Your task to perform on an android device: allow notifications from all sites in the chrome app Image 0: 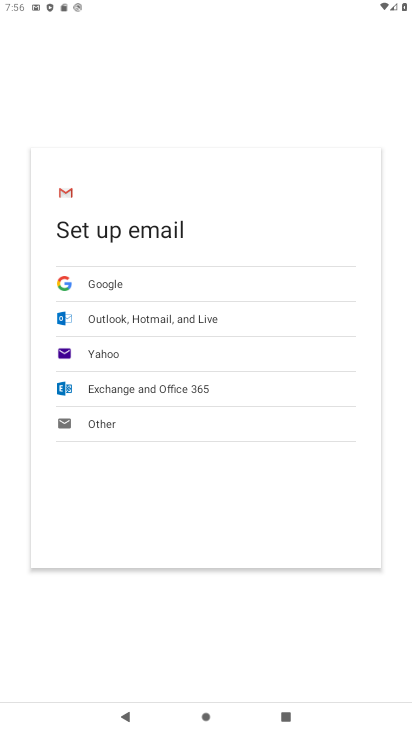
Step 0: press home button
Your task to perform on an android device: allow notifications from all sites in the chrome app Image 1: 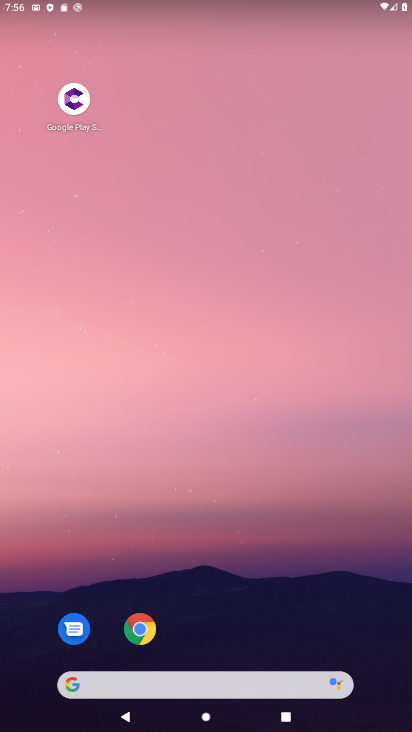
Step 1: drag from (229, 639) to (232, 572)
Your task to perform on an android device: allow notifications from all sites in the chrome app Image 2: 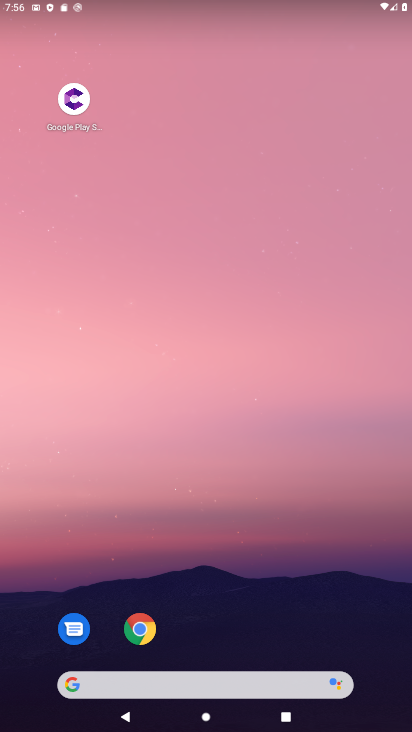
Step 2: click (133, 632)
Your task to perform on an android device: allow notifications from all sites in the chrome app Image 3: 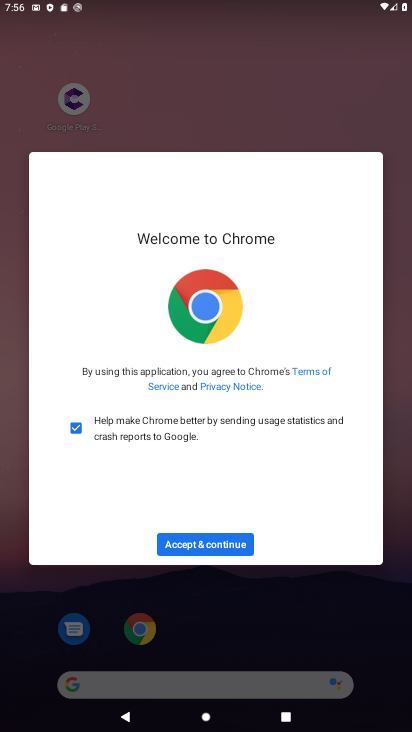
Step 3: click (227, 538)
Your task to perform on an android device: allow notifications from all sites in the chrome app Image 4: 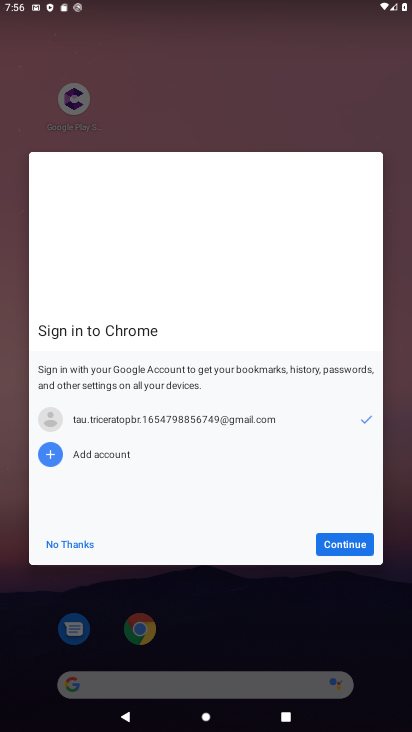
Step 4: click (330, 544)
Your task to perform on an android device: allow notifications from all sites in the chrome app Image 5: 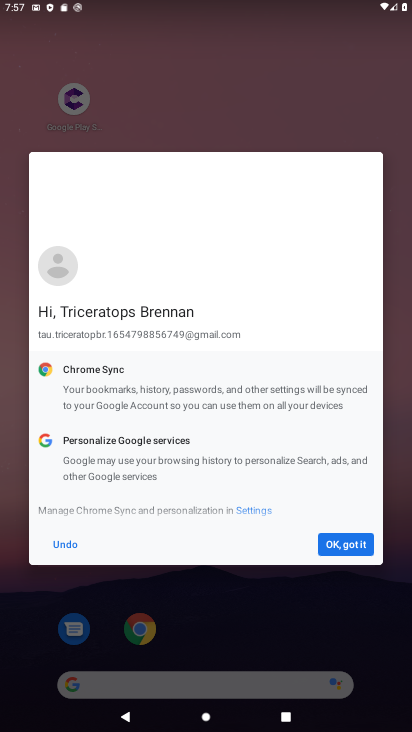
Step 5: click (325, 541)
Your task to perform on an android device: allow notifications from all sites in the chrome app Image 6: 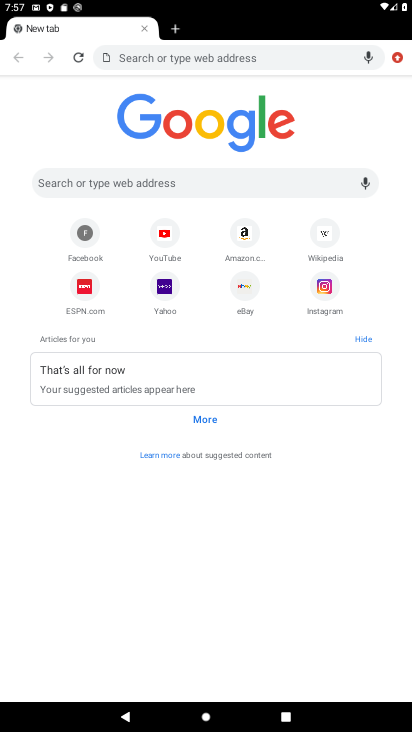
Step 6: click (395, 46)
Your task to perform on an android device: allow notifications from all sites in the chrome app Image 7: 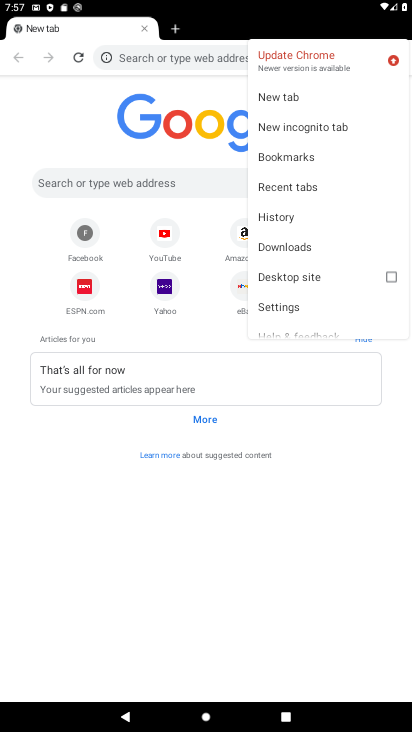
Step 7: click (294, 307)
Your task to perform on an android device: allow notifications from all sites in the chrome app Image 8: 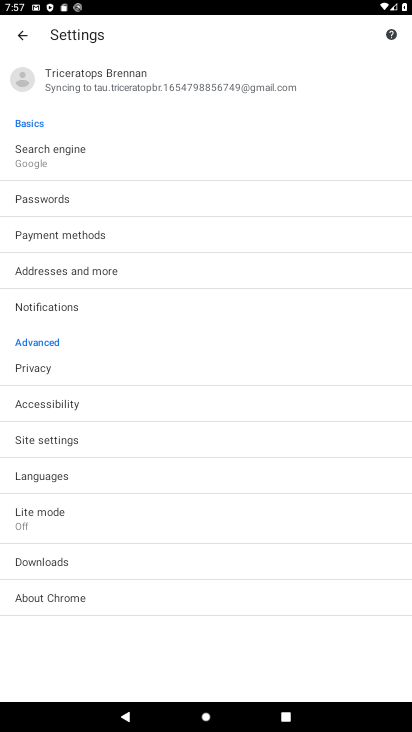
Step 8: click (77, 445)
Your task to perform on an android device: allow notifications from all sites in the chrome app Image 9: 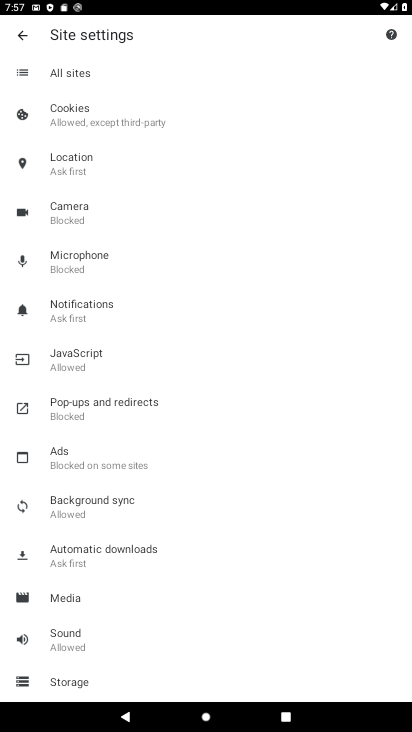
Step 9: click (96, 69)
Your task to perform on an android device: allow notifications from all sites in the chrome app Image 10: 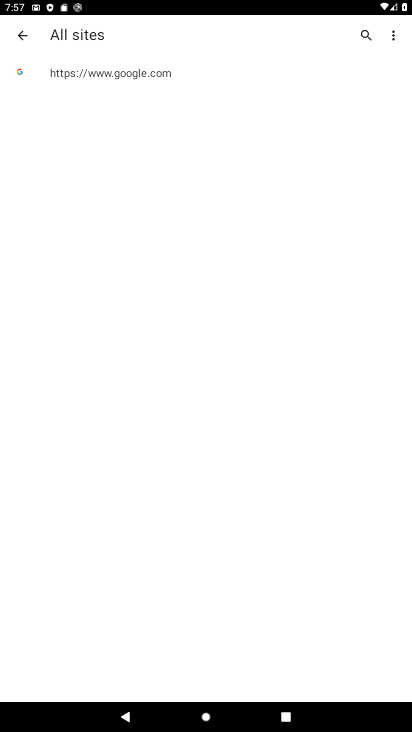
Step 10: click (147, 80)
Your task to perform on an android device: allow notifications from all sites in the chrome app Image 11: 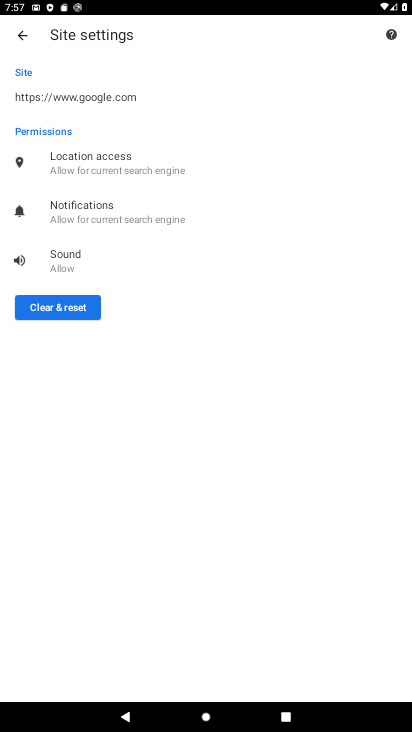
Step 11: click (126, 218)
Your task to perform on an android device: allow notifications from all sites in the chrome app Image 12: 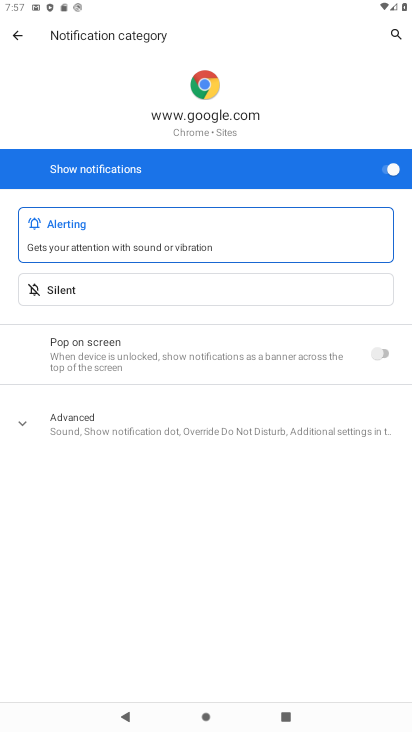
Step 12: task complete